Your task to perform on an android device: Go to network settings Image 0: 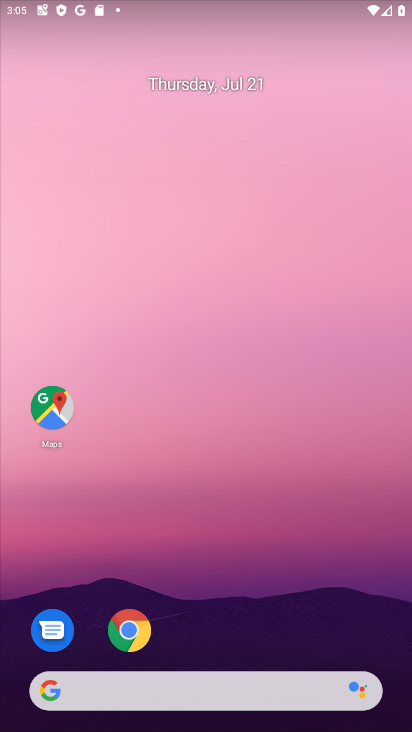
Step 0: drag from (299, 532) to (140, 15)
Your task to perform on an android device: Go to network settings Image 1: 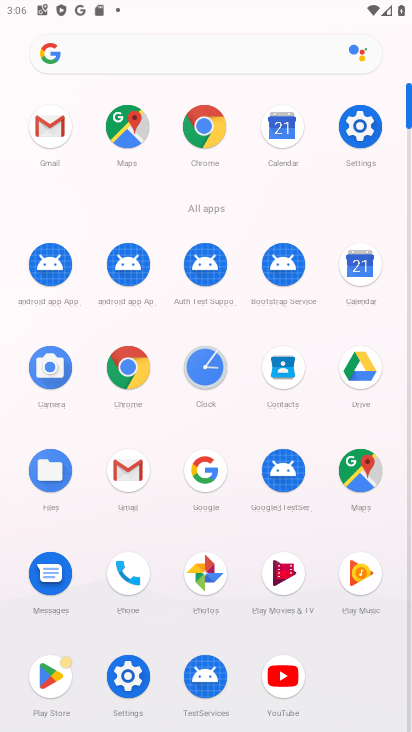
Step 1: click (360, 107)
Your task to perform on an android device: Go to network settings Image 2: 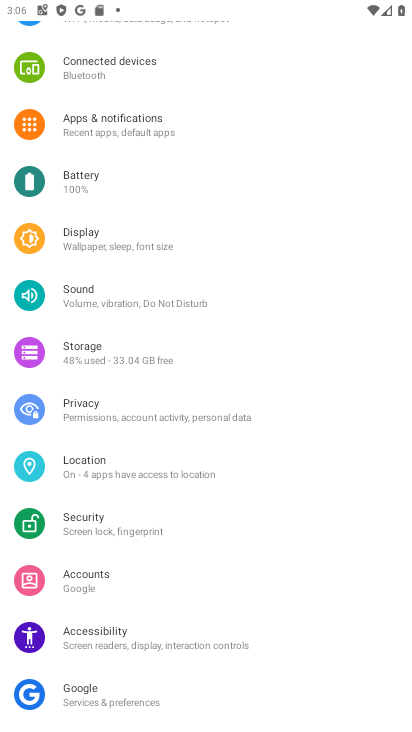
Step 2: drag from (193, 154) to (316, 664)
Your task to perform on an android device: Go to network settings Image 3: 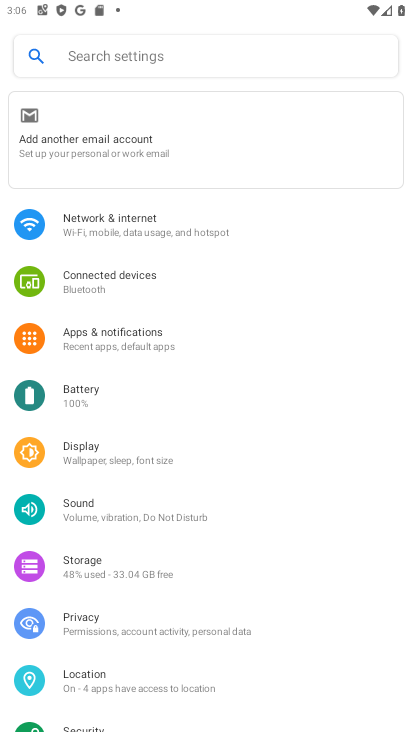
Step 3: click (128, 218)
Your task to perform on an android device: Go to network settings Image 4: 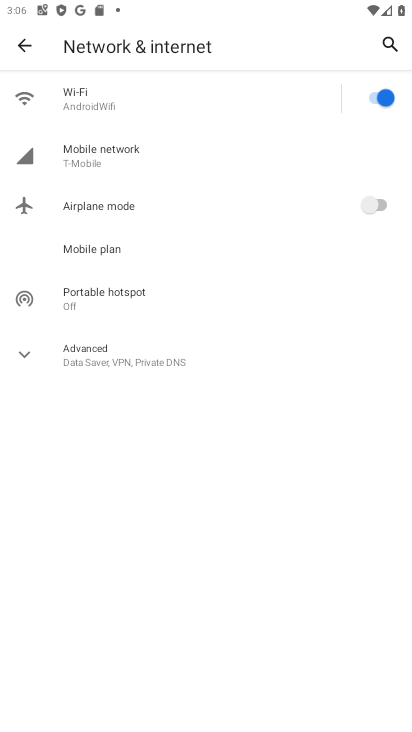
Step 4: task complete